Your task to perform on an android device: Open network settings Image 0: 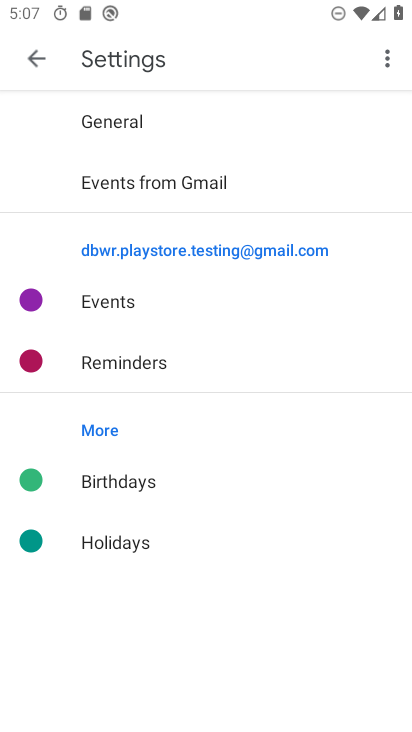
Step 0: press home button
Your task to perform on an android device: Open network settings Image 1: 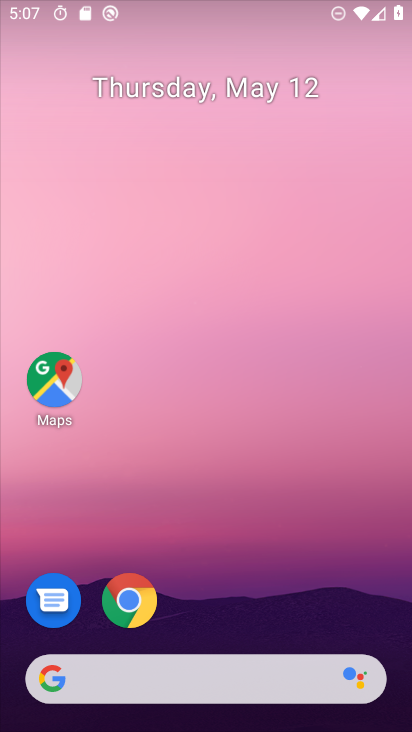
Step 1: drag from (171, 648) to (192, 6)
Your task to perform on an android device: Open network settings Image 2: 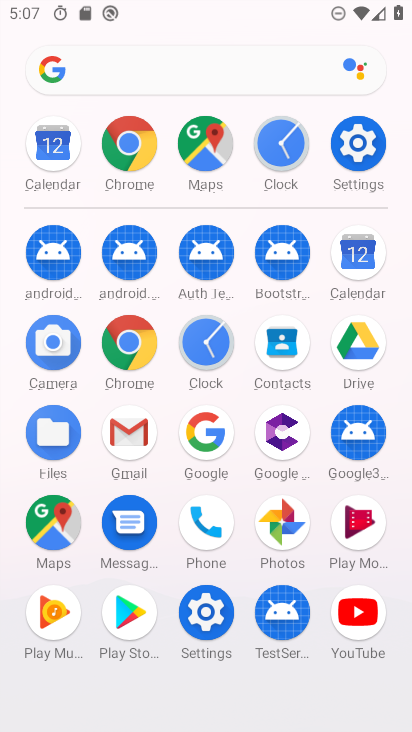
Step 2: click (370, 147)
Your task to perform on an android device: Open network settings Image 3: 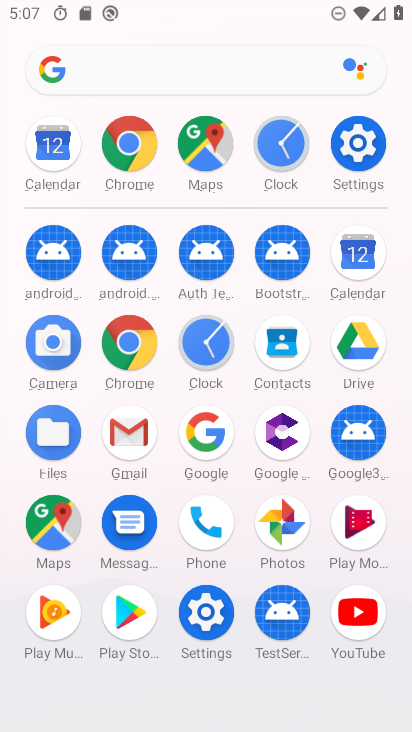
Step 3: click (370, 147)
Your task to perform on an android device: Open network settings Image 4: 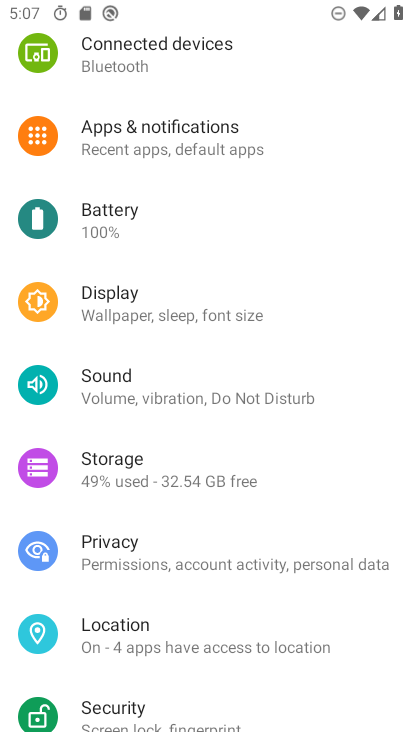
Step 4: drag from (206, 668) to (271, 305)
Your task to perform on an android device: Open network settings Image 5: 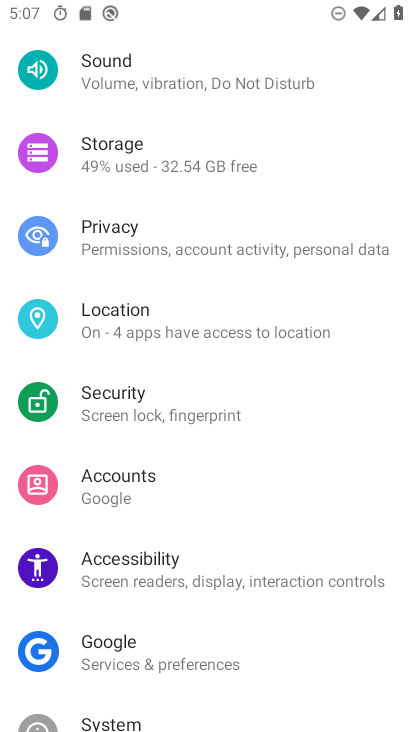
Step 5: drag from (195, 158) to (283, 718)
Your task to perform on an android device: Open network settings Image 6: 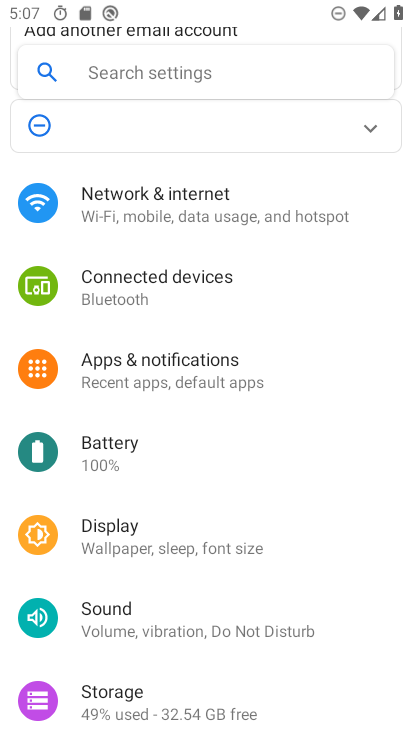
Step 6: click (143, 208)
Your task to perform on an android device: Open network settings Image 7: 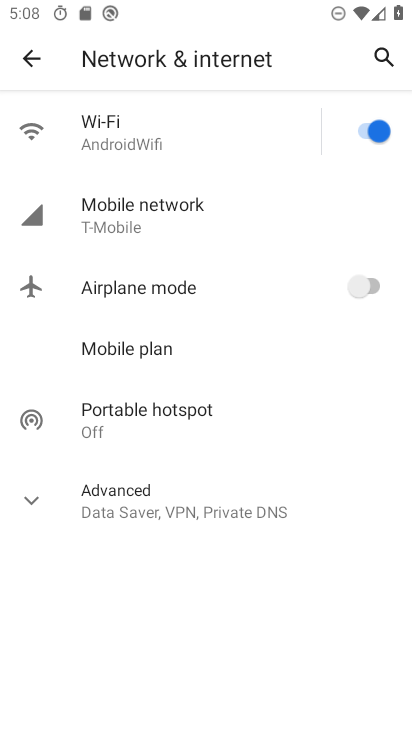
Step 7: task complete